Your task to perform on an android device: Go to settings Image 0: 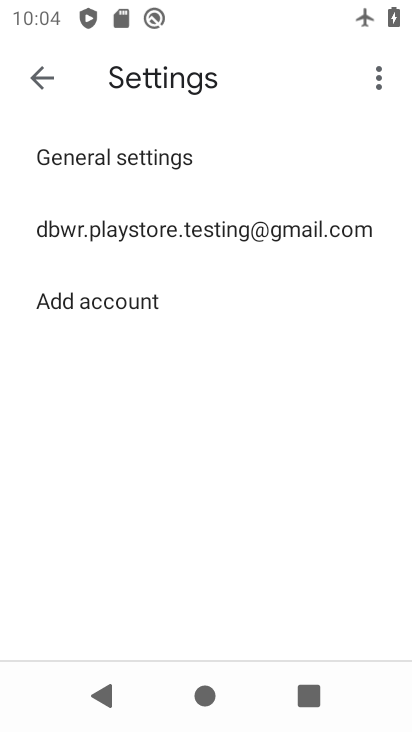
Step 0: press back button
Your task to perform on an android device: Go to settings Image 1: 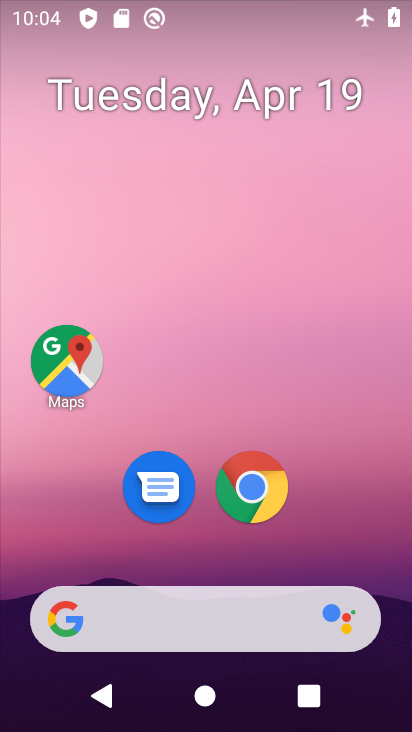
Step 1: drag from (333, 556) to (356, 34)
Your task to perform on an android device: Go to settings Image 2: 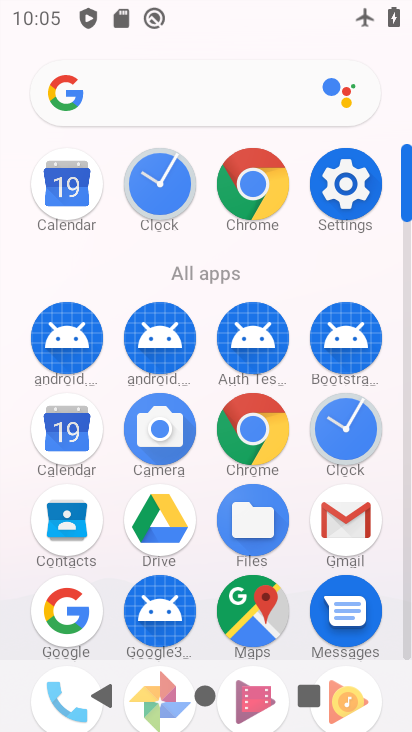
Step 2: click (356, 192)
Your task to perform on an android device: Go to settings Image 3: 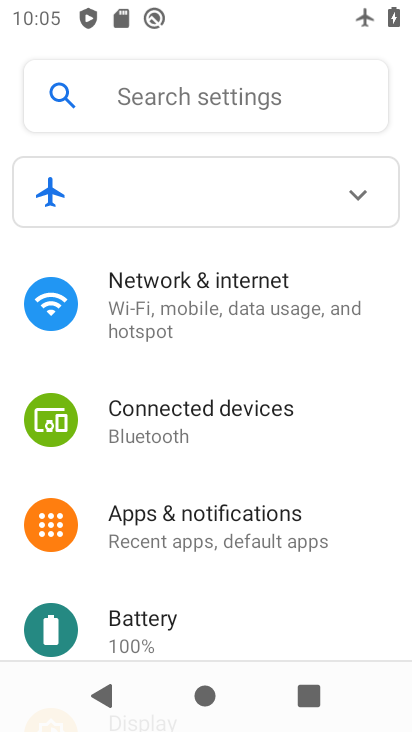
Step 3: task complete